Your task to perform on an android device: toggle translation in the chrome app Image 0: 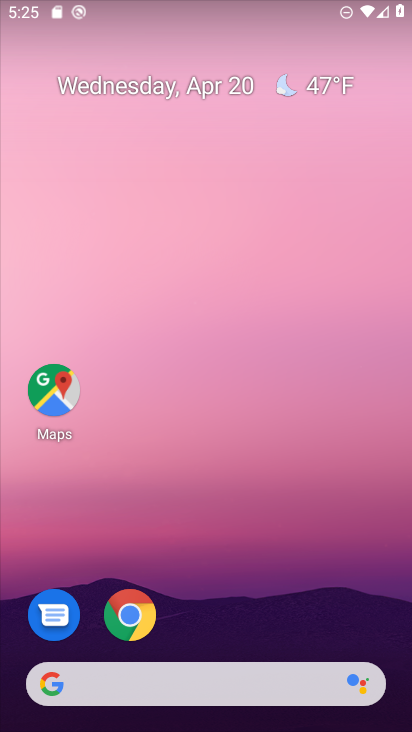
Step 0: drag from (302, 591) to (300, 85)
Your task to perform on an android device: toggle translation in the chrome app Image 1: 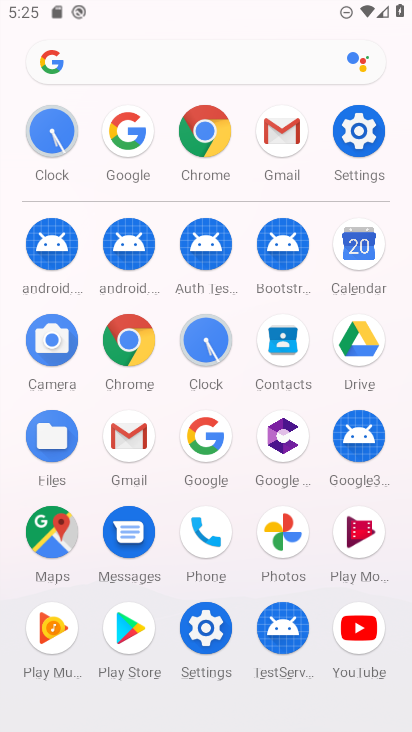
Step 1: click (199, 129)
Your task to perform on an android device: toggle translation in the chrome app Image 2: 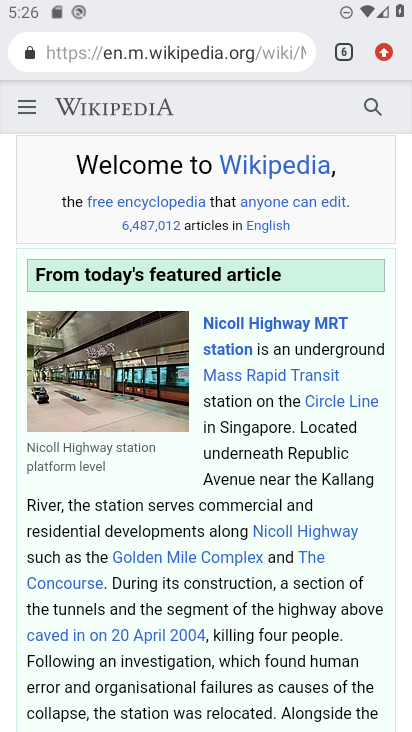
Step 2: click (387, 57)
Your task to perform on an android device: toggle translation in the chrome app Image 3: 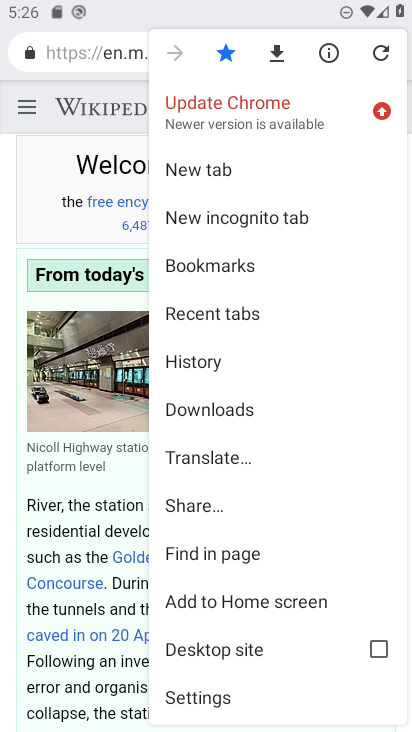
Step 3: click (233, 701)
Your task to perform on an android device: toggle translation in the chrome app Image 4: 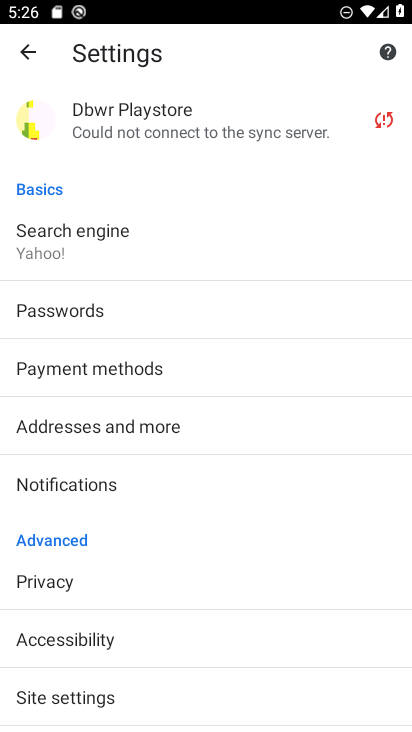
Step 4: drag from (179, 594) to (179, 275)
Your task to perform on an android device: toggle translation in the chrome app Image 5: 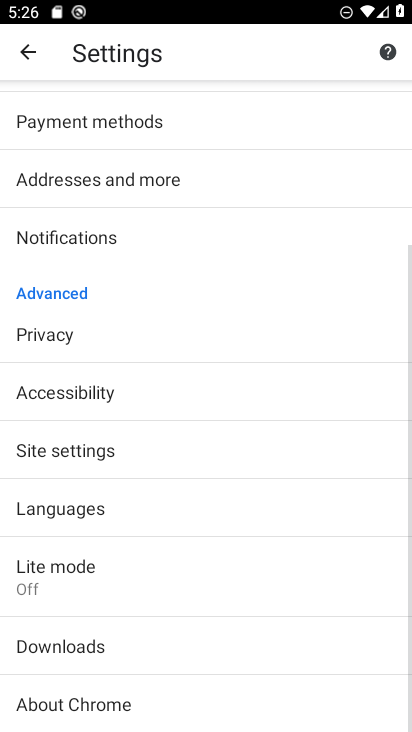
Step 5: click (94, 510)
Your task to perform on an android device: toggle translation in the chrome app Image 6: 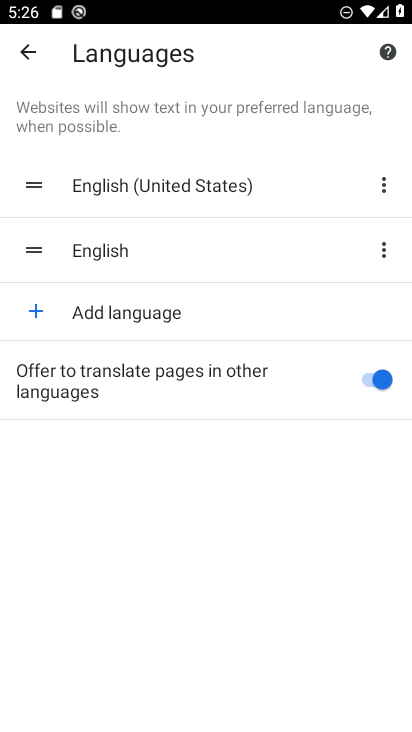
Step 6: click (367, 375)
Your task to perform on an android device: toggle translation in the chrome app Image 7: 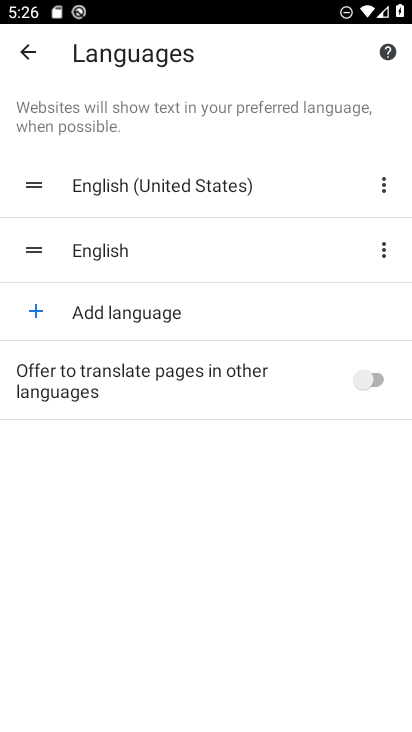
Step 7: task complete